Your task to perform on an android device: Clear all items from cart on ebay.com. Search for duracell triple a on ebay.com, select the first entry, add it to the cart, then select checkout. Image 0: 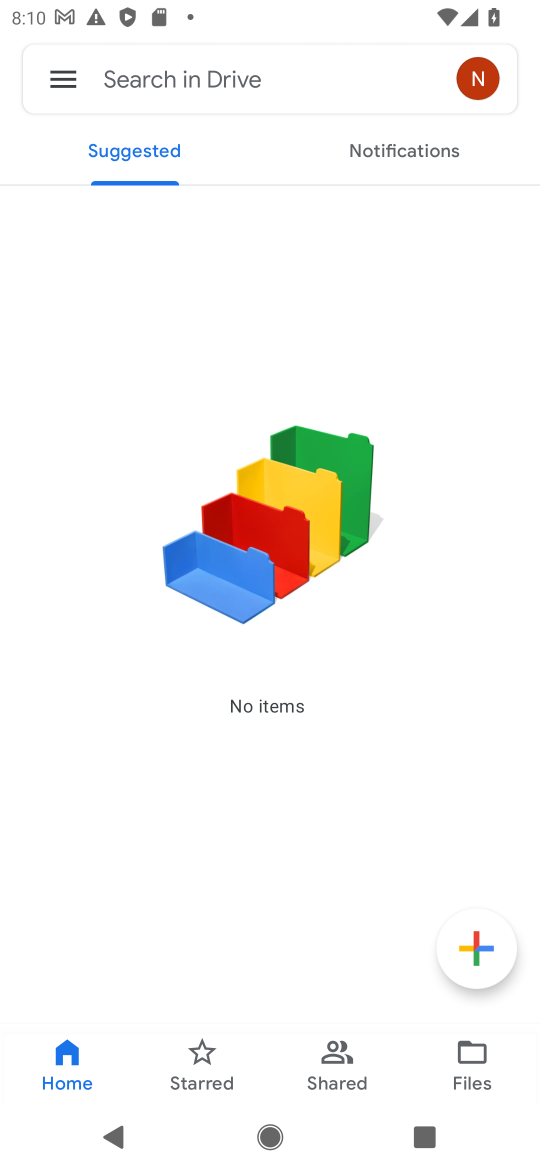
Step 0: press home button
Your task to perform on an android device: Clear all items from cart on ebay.com. Search for duracell triple a on ebay.com, select the first entry, add it to the cart, then select checkout. Image 1: 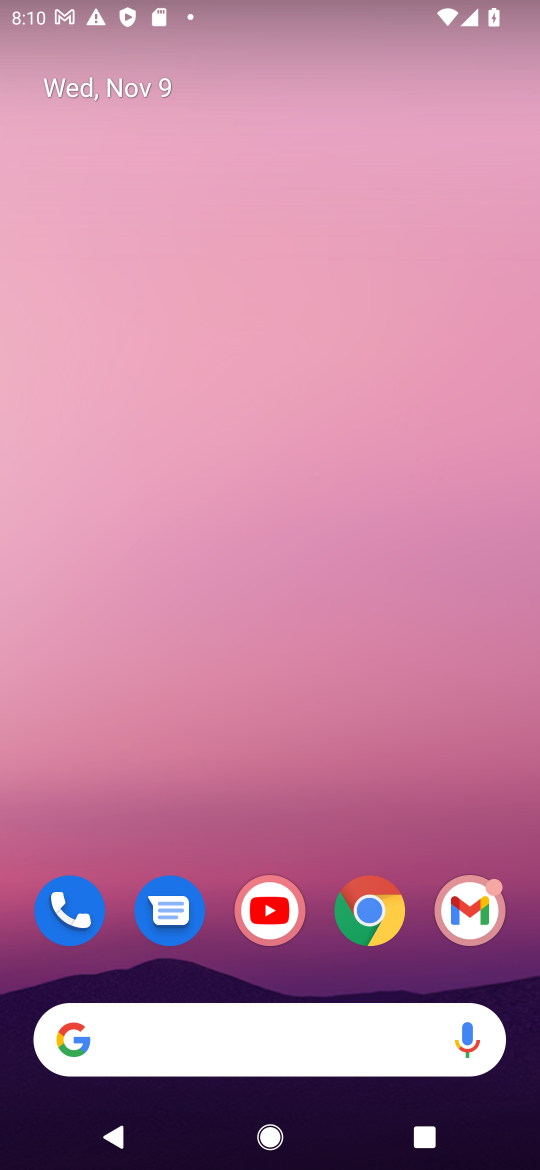
Step 1: click (352, 912)
Your task to perform on an android device: Clear all items from cart on ebay.com. Search for duracell triple a on ebay.com, select the first entry, add it to the cart, then select checkout. Image 2: 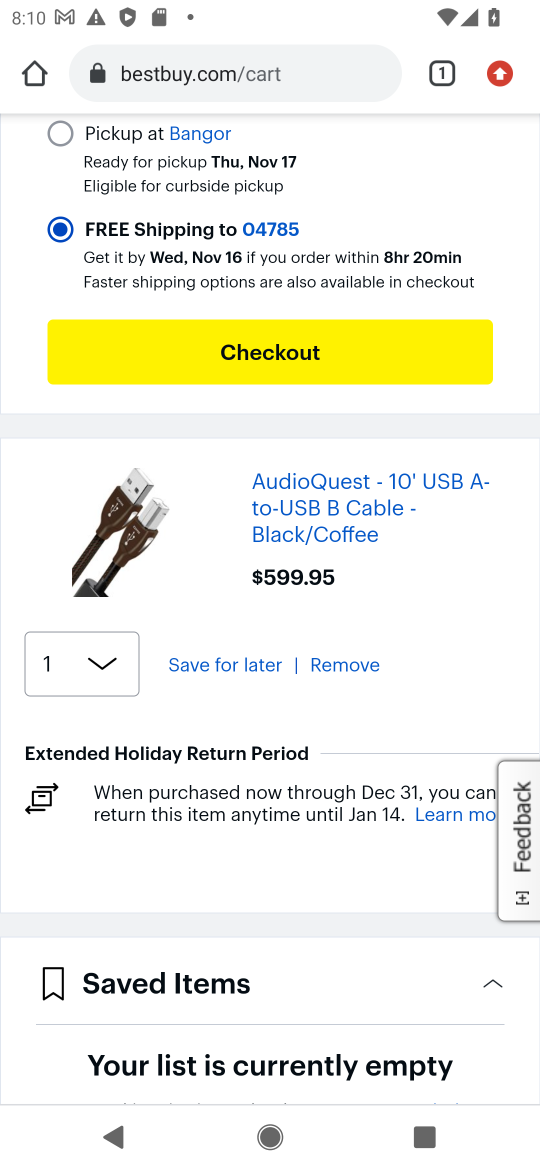
Step 2: click (214, 74)
Your task to perform on an android device: Clear all items from cart on ebay.com. Search for duracell triple a on ebay.com, select the first entry, add it to the cart, then select checkout. Image 3: 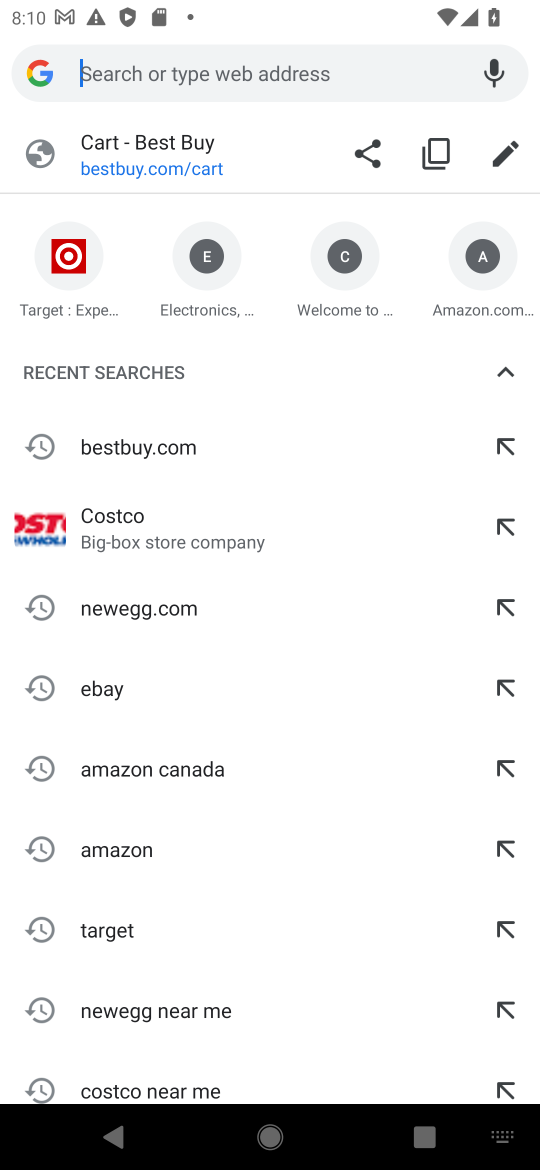
Step 3: type "ebay.com"
Your task to perform on an android device: Clear all items from cart on ebay.com. Search for duracell triple a on ebay.com, select the first entry, add it to the cart, then select checkout. Image 4: 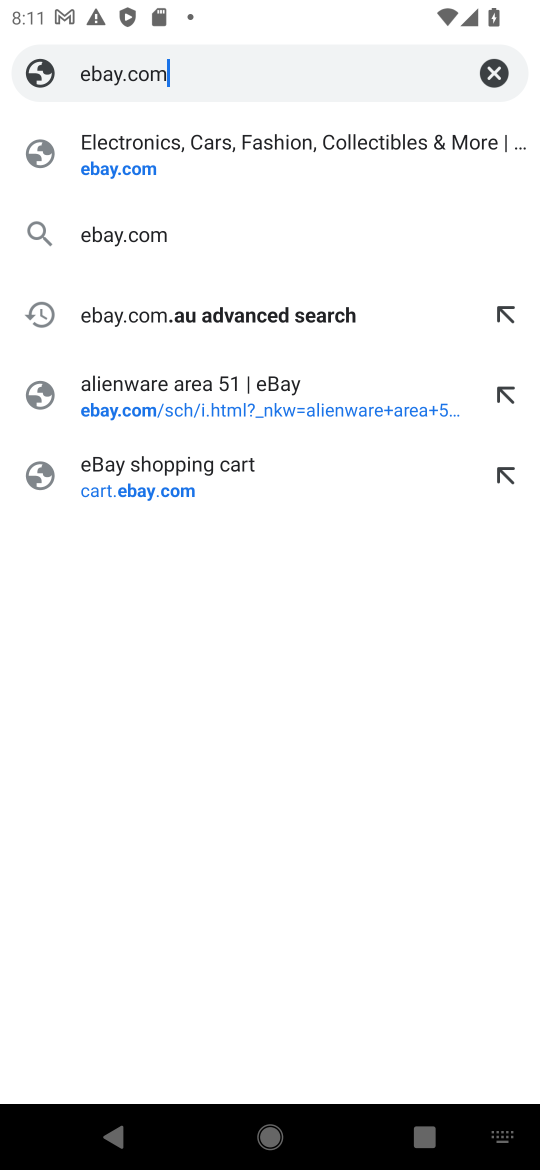
Step 4: click (144, 163)
Your task to perform on an android device: Clear all items from cart on ebay.com. Search for duracell triple a on ebay.com, select the first entry, add it to the cart, then select checkout. Image 5: 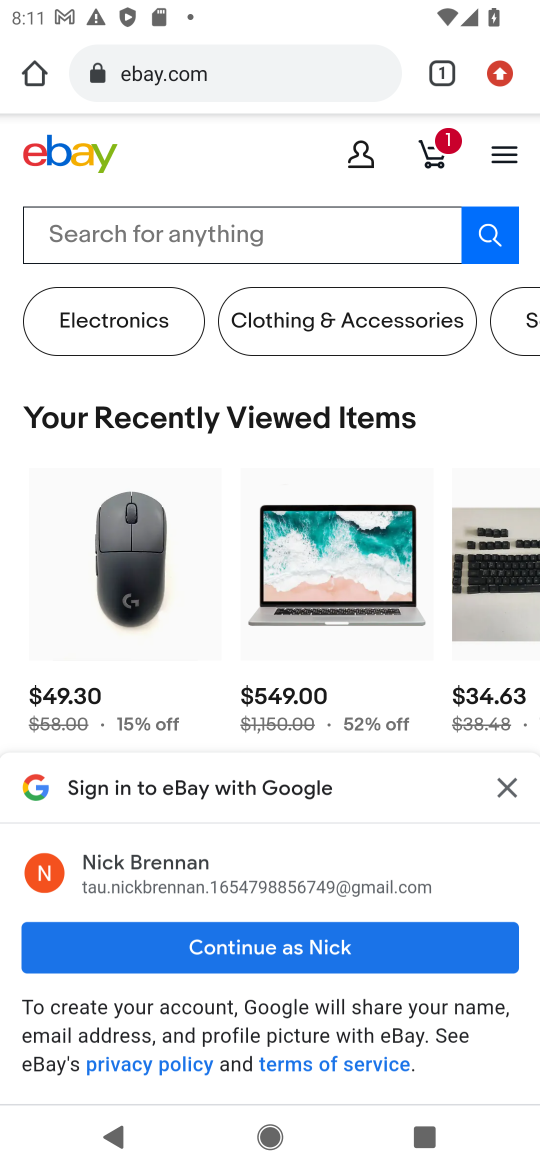
Step 5: click (436, 148)
Your task to perform on an android device: Clear all items from cart on ebay.com. Search for duracell triple a on ebay.com, select the first entry, add it to the cart, then select checkout. Image 6: 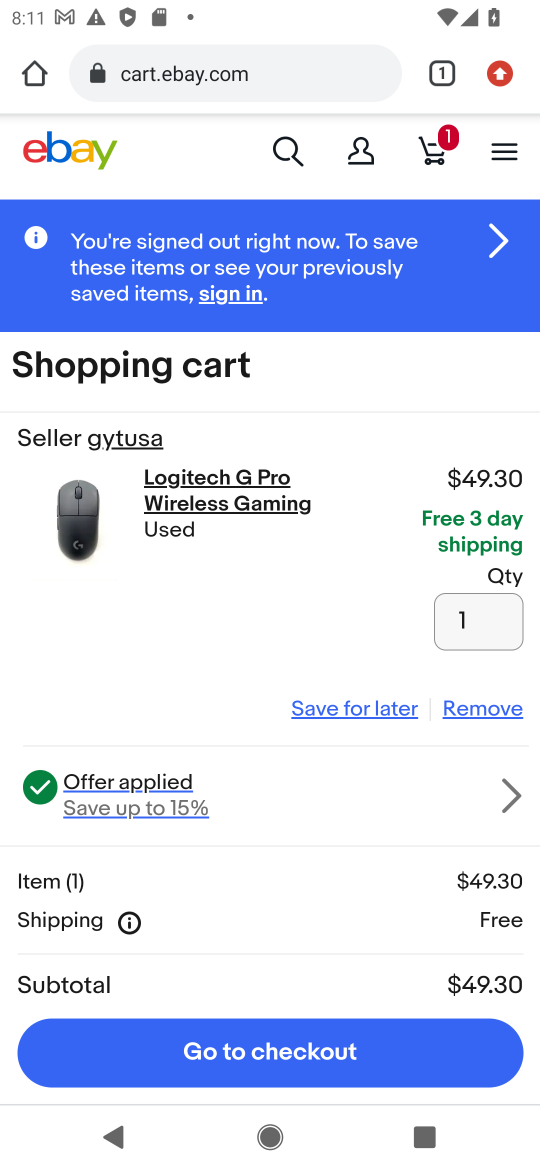
Step 6: click (482, 716)
Your task to perform on an android device: Clear all items from cart on ebay.com. Search for duracell triple a on ebay.com, select the first entry, add it to the cart, then select checkout. Image 7: 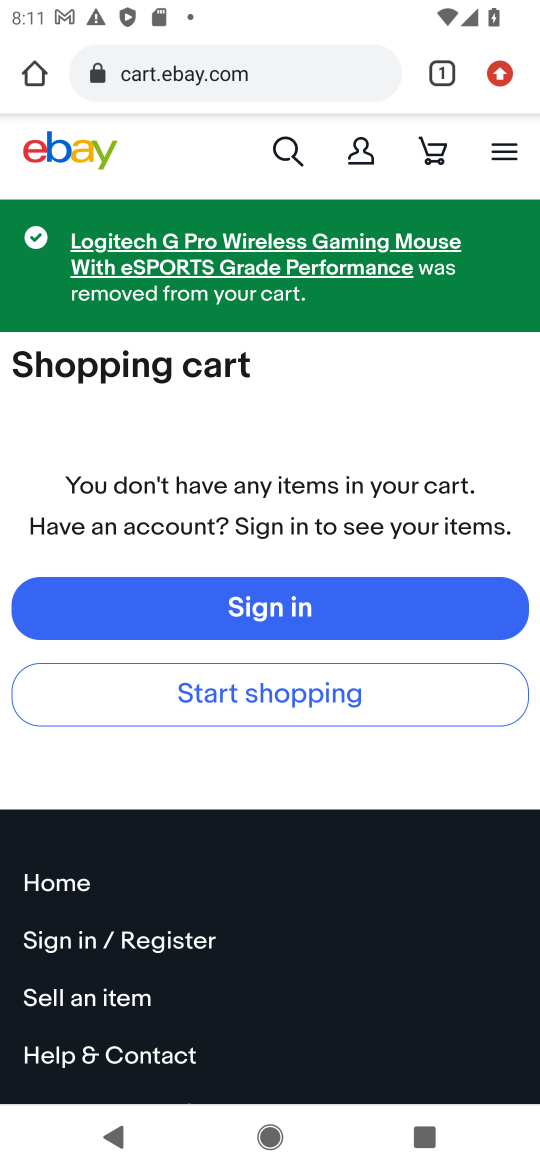
Step 7: click (282, 147)
Your task to perform on an android device: Clear all items from cart on ebay.com. Search for duracell triple a on ebay.com, select the first entry, add it to the cart, then select checkout. Image 8: 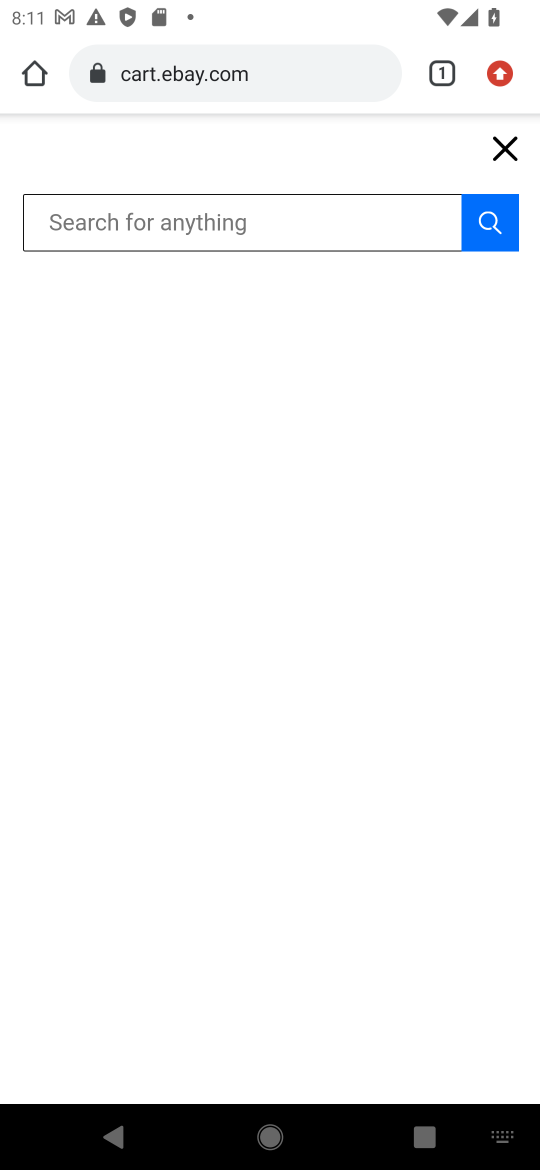
Step 8: type " duracell triple a"
Your task to perform on an android device: Clear all items from cart on ebay.com. Search for duracell triple a on ebay.com, select the first entry, add it to the cart, then select checkout. Image 9: 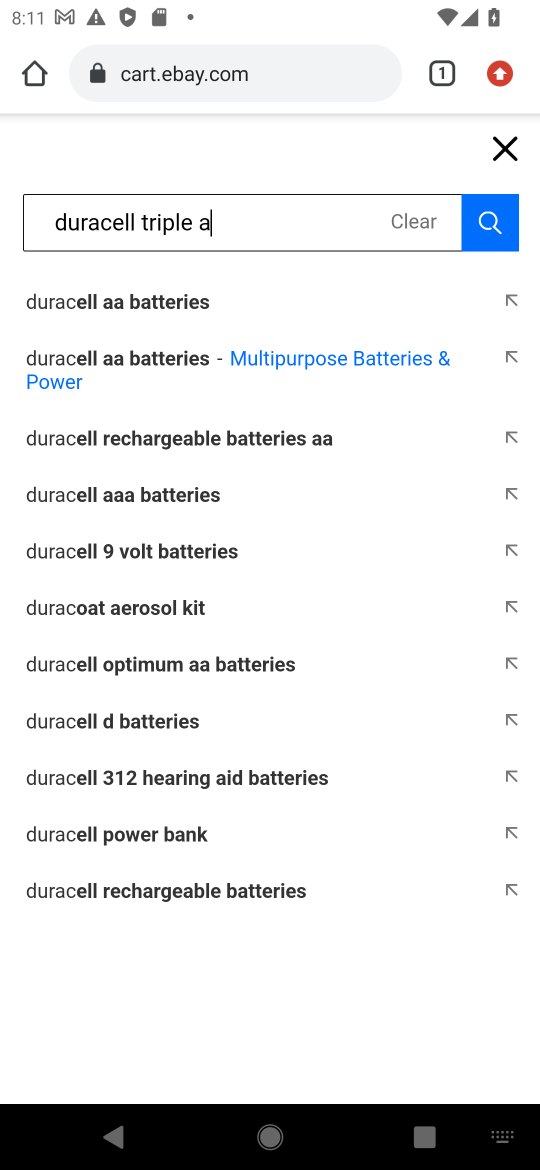
Step 9: click (477, 232)
Your task to perform on an android device: Clear all items from cart on ebay.com. Search for duracell triple a on ebay.com, select the first entry, add it to the cart, then select checkout. Image 10: 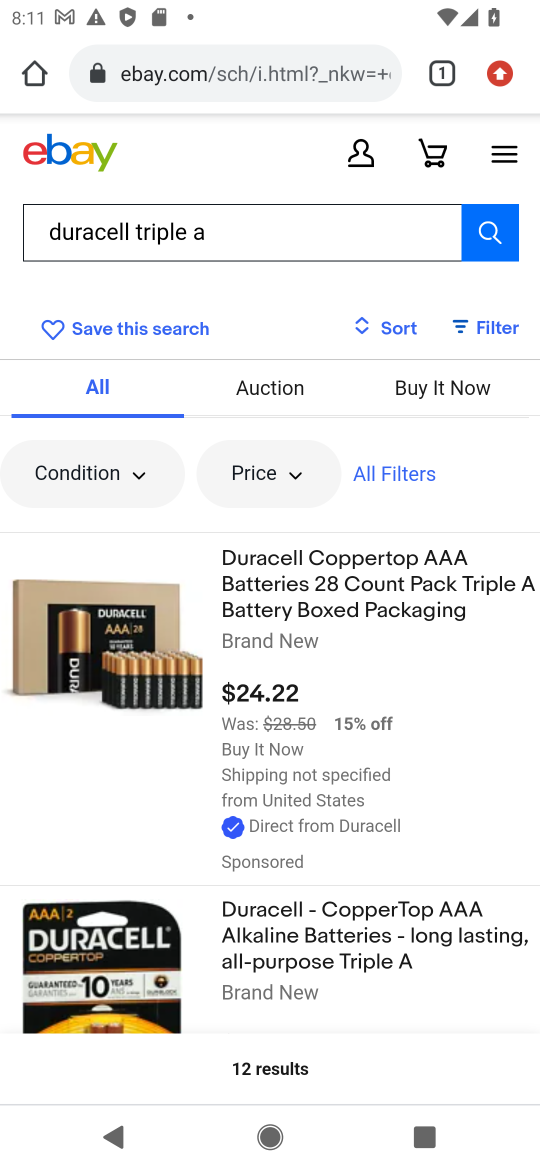
Step 10: click (116, 671)
Your task to perform on an android device: Clear all items from cart on ebay.com. Search for duracell triple a on ebay.com, select the first entry, add it to the cart, then select checkout. Image 11: 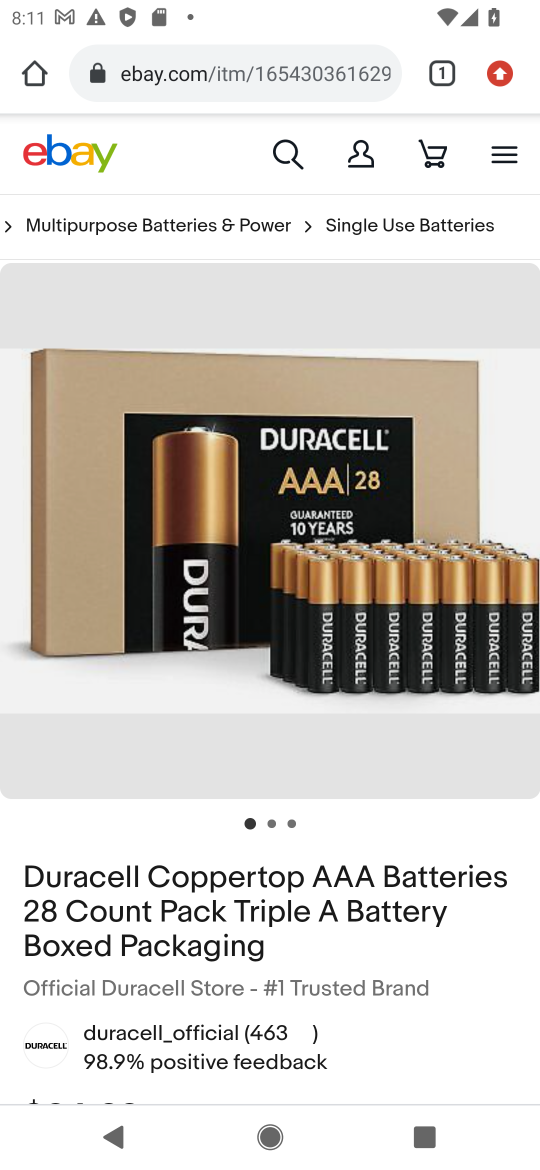
Step 11: drag from (295, 832) to (259, 329)
Your task to perform on an android device: Clear all items from cart on ebay.com. Search for duracell triple a on ebay.com, select the first entry, add it to the cart, then select checkout. Image 12: 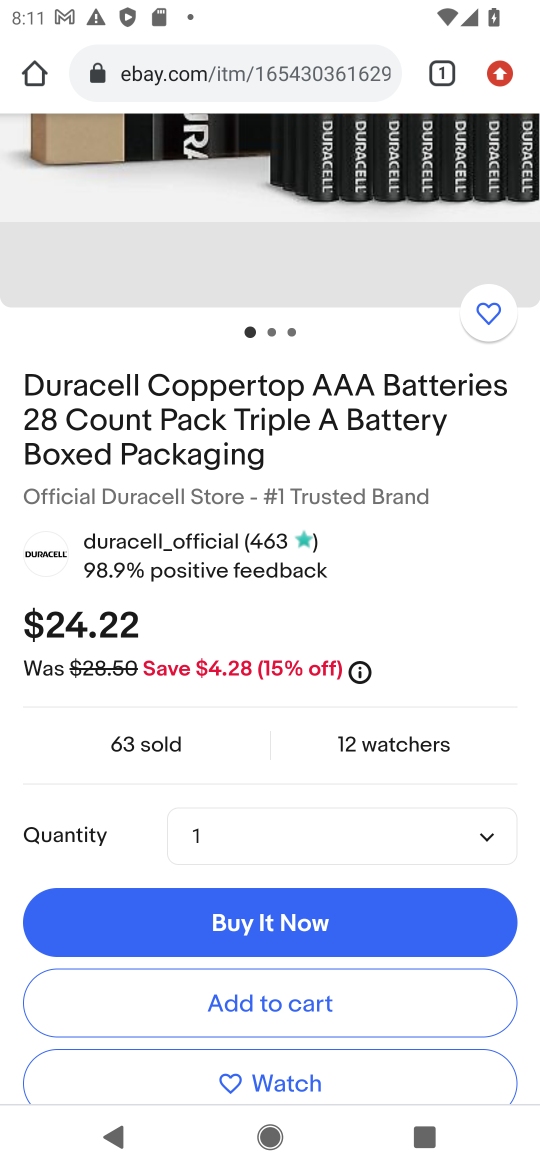
Step 12: click (249, 995)
Your task to perform on an android device: Clear all items from cart on ebay.com. Search for duracell triple a on ebay.com, select the first entry, add it to the cart, then select checkout. Image 13: 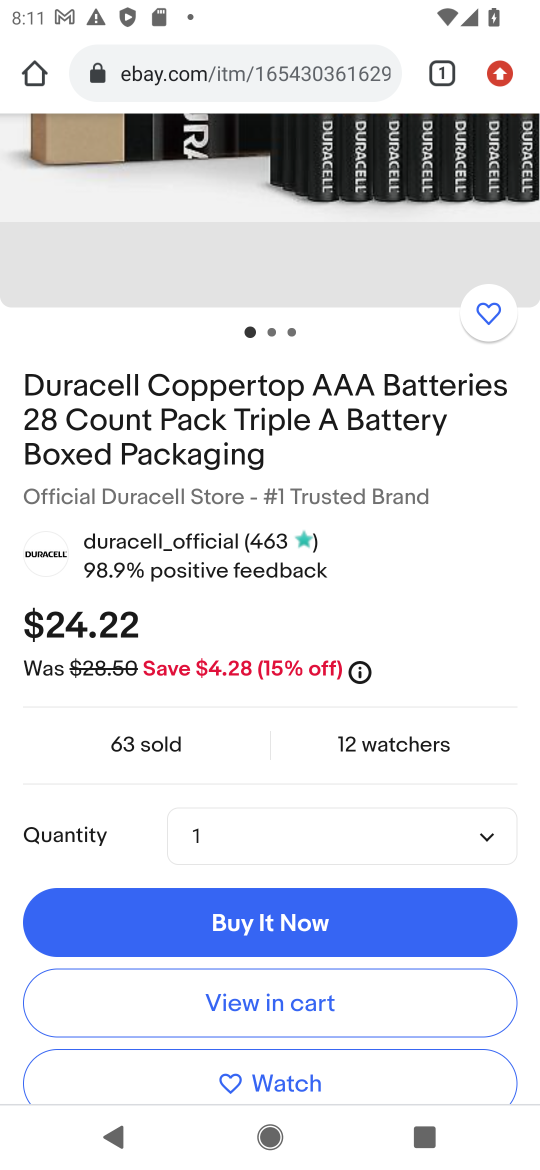
Step 13: click (249, 995)
Your task to perform on an android device: Clear all items from cart on ebay.com. Search for duracell triple a on ebay.com, select the first entry, add it to the cart, then select checkout. Image 14: 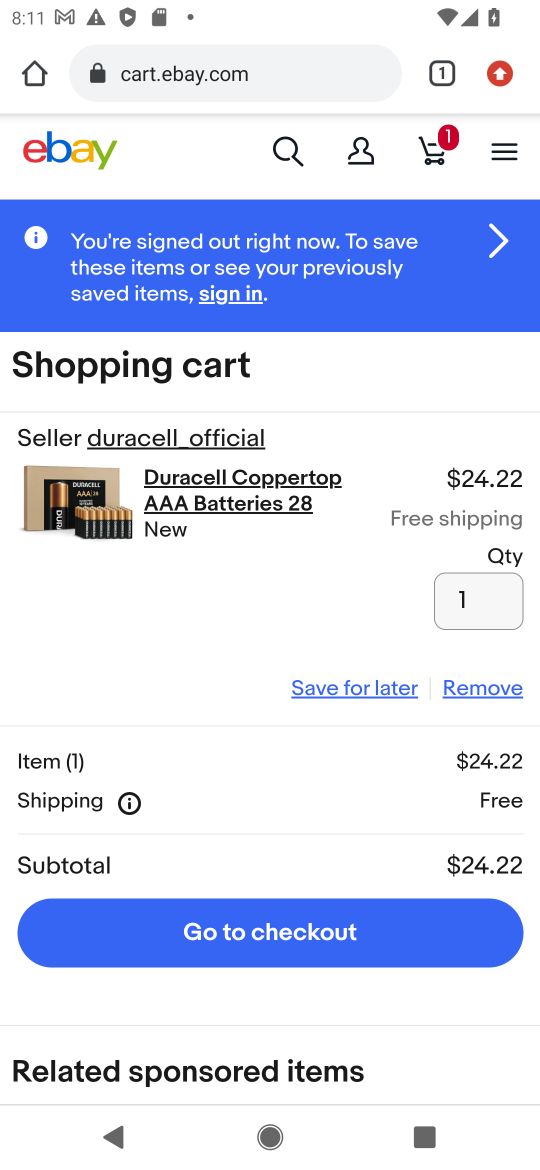
Step 14: click (258, 939)
Your task to perform on an android device: Clear all items from cart on ebay.com. Search for duracell triple a on ebay.com, select the first entry, add it to the cart, then select checkout. Image 15: 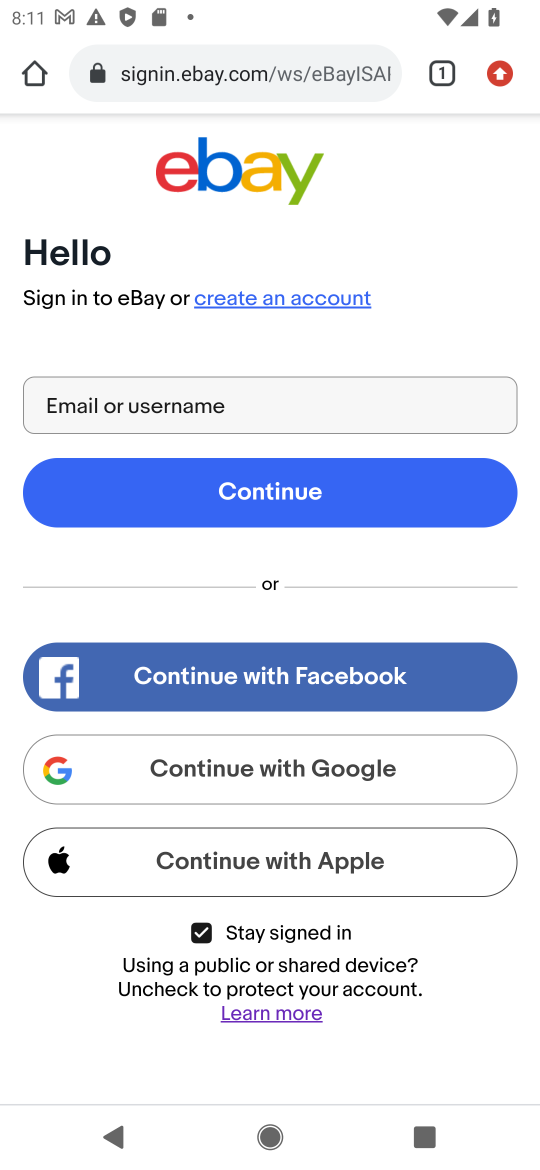
Step 15: task complete